Your task to perform on an android device: turn vacation reply on in the gmail app Image 0: 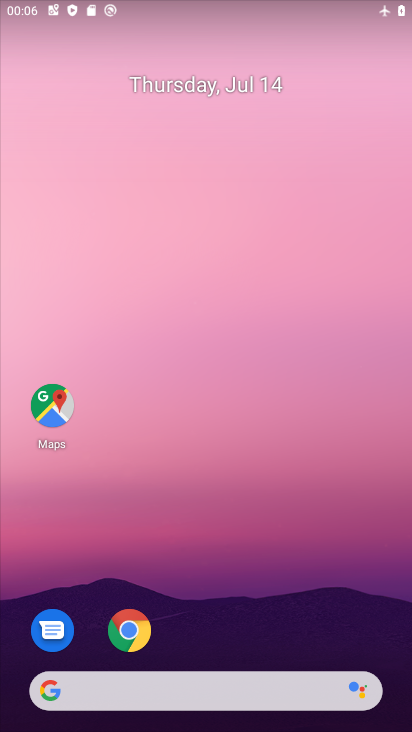
Step 0: drag from (304, 602) to (354, 153)
Your task to perform on an android device: turn vacation reply on in the gmail app Image 1: 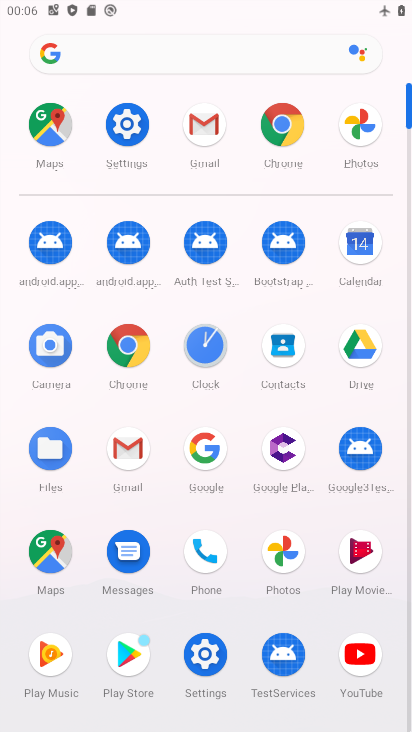
Step 1: click (130, 453)
Your task to perform on an android device: turn vacation reply on in the gmail app Image 2: 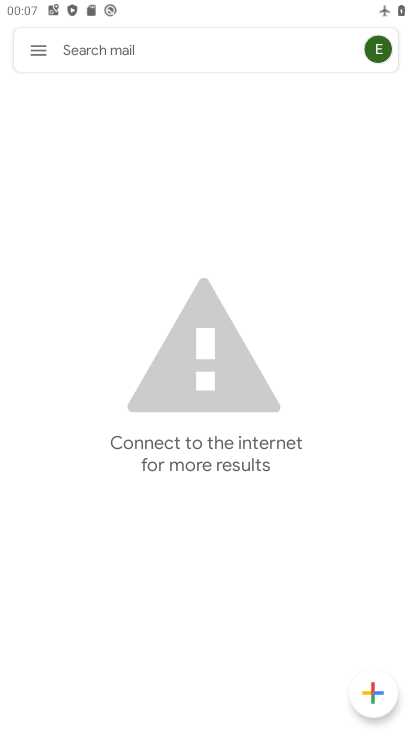
Step 2: click (39, 52)
Your task to perform on an android device: turn vacation reply on in the gmail app Image 3: 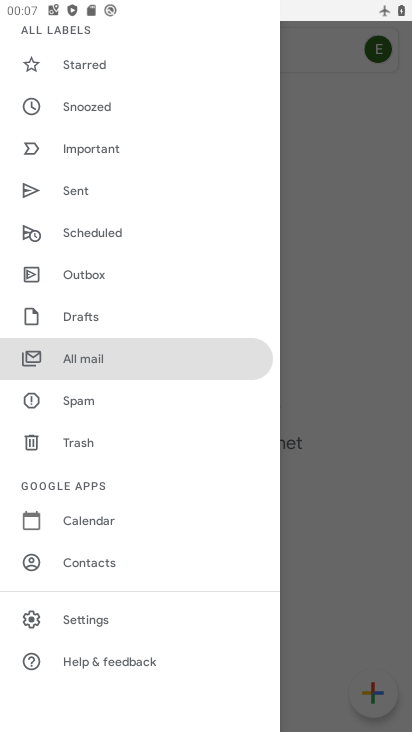
Step 3: drag from (188, 527) to (228, 202)
Your task to perform on an android device: turn vacation reply on in the gmail app Image 4: 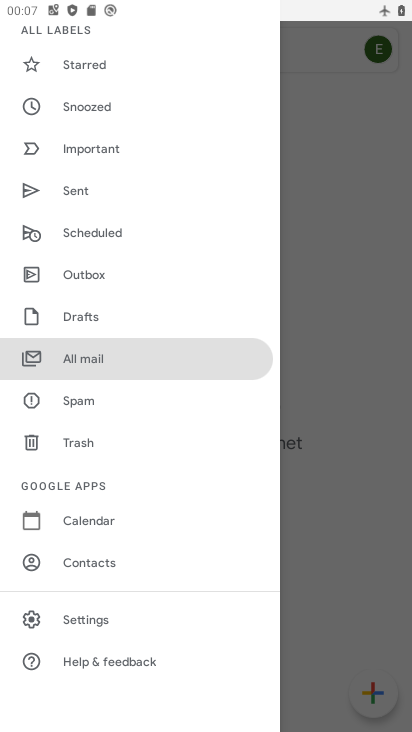
Step 4: click (145, 623)
Your task to perform on an android device: turn vacation reply on in the gmail app Image 5: 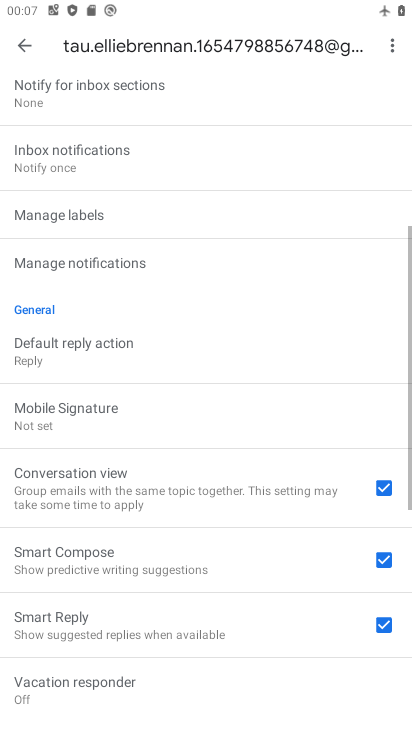
Step 5: drag from (297, 535) to (320, 322)
Your task to perform on an android device: turn vacation reply on in the gmail app Image 6: 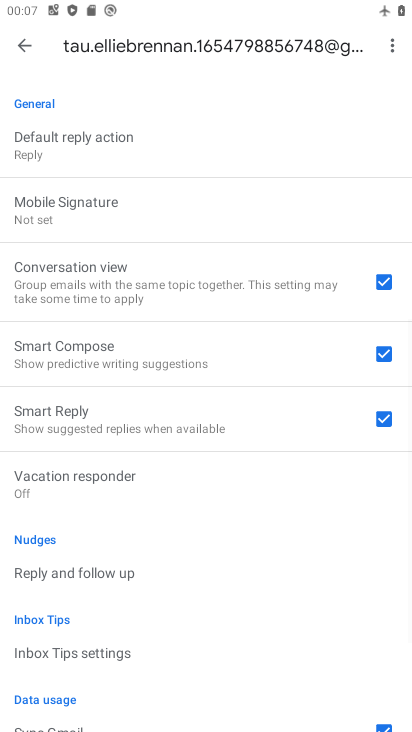
Step 6: drag from (300, 506) to (309, 311)
Your task to perform on an android device: turn vacation reply on in the gmail app Image 7: 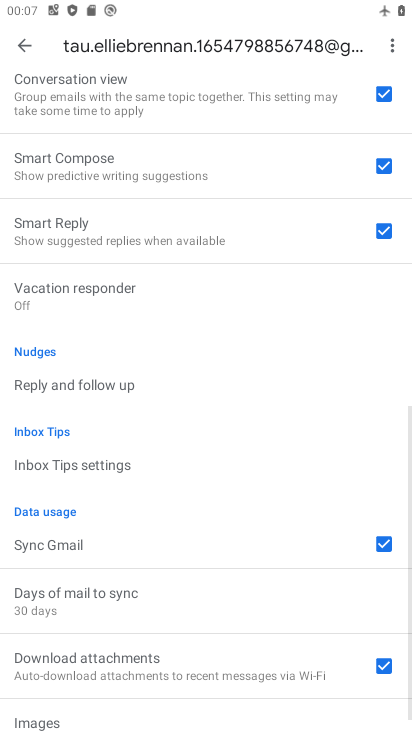
Step 7: drag from (329, 223) to (303, 426)
Your task to perform on an android device: turn vacation reply on in the gmail app Image 8: 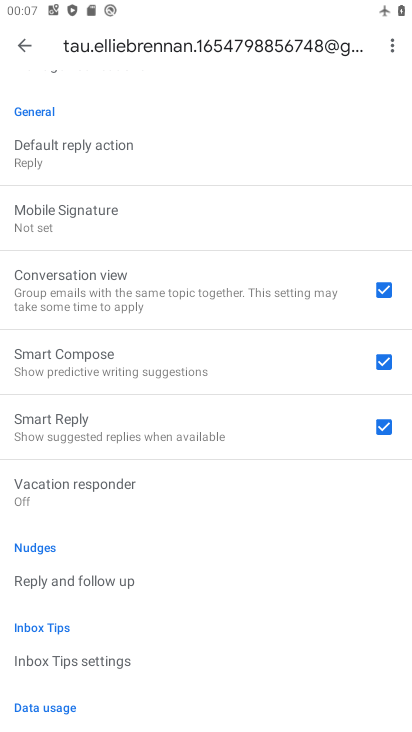
Step 8: drag from (290, 228) to (289, 346)
Your task to perform on an android device: turn vacation reply on in the gmail app Image 9: 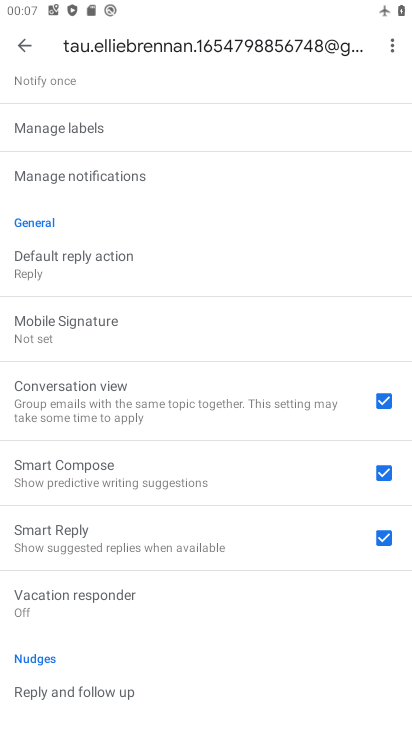
Step 9: drag from (276, 522) to (280, 414)
Your task to perform on an android device: turn vacation reply on in the gmail app Image 10: 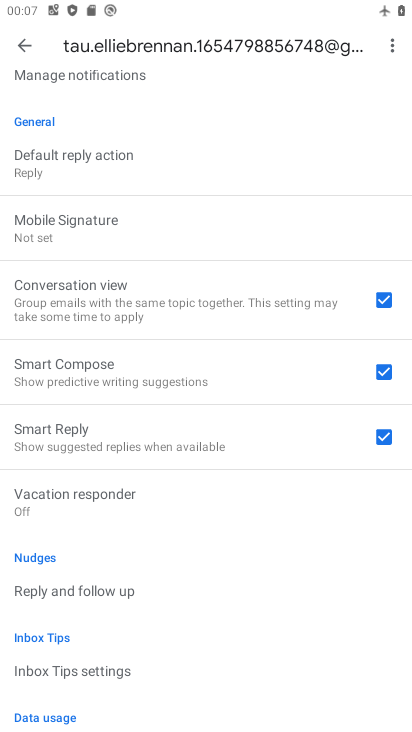
Step 10: click (115, 509)
Your task to perform on an android device: turn vacation reply on in the gmail app Image 11: 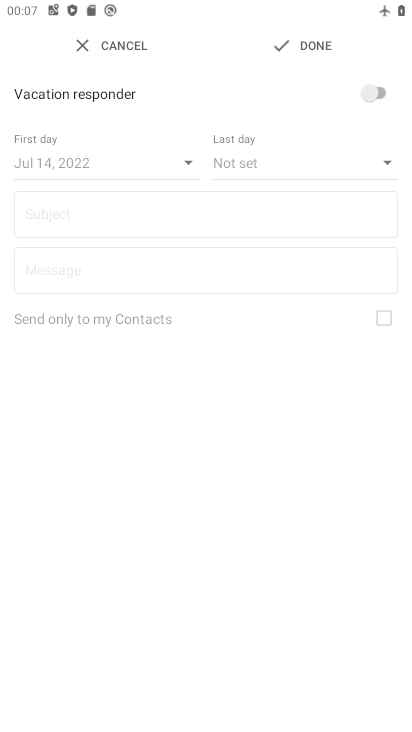
Step 11: click (368, 94)
Your task to perform on an android device: turn vacation reply on in the gmail app Image 12: 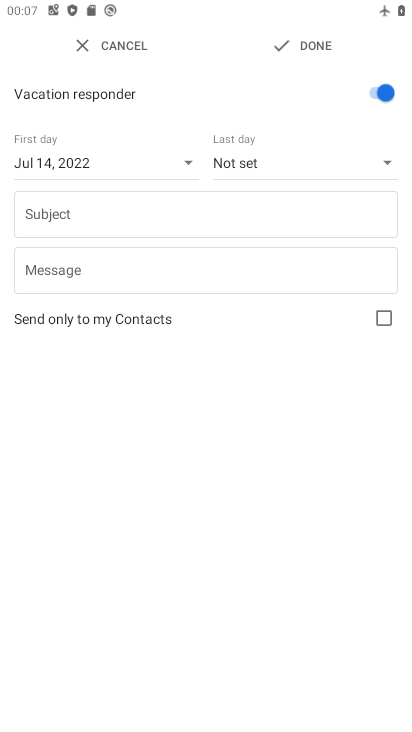
Step 12: task complete